Your task to perform on an android device: add a contact Image 0: 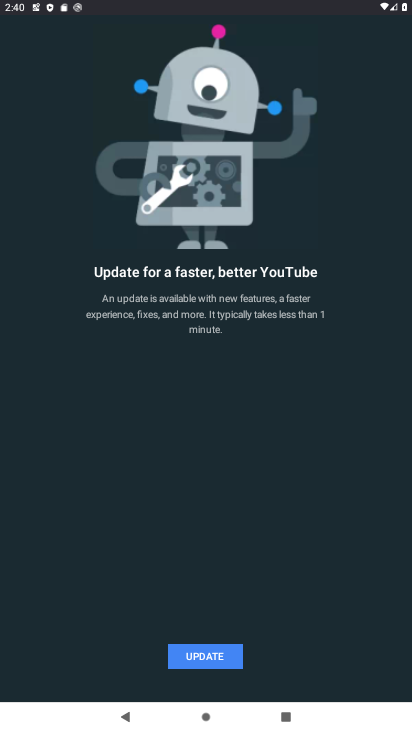
Step 0: press home button
Your task to perform on an android device: add a contact Image 1: 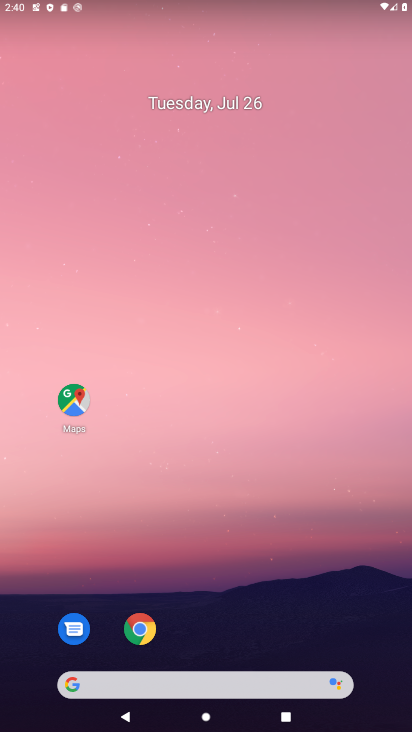
Step 1: drag from (229, 650) to (282, 83)
Your task to perform on an android device: add a contact Image 2: 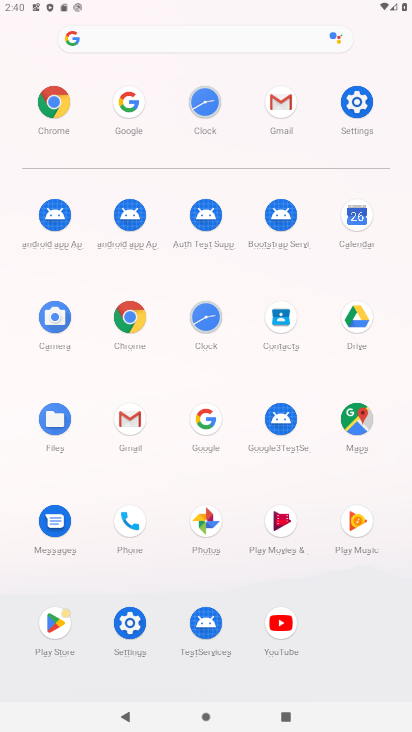
Step 2: click (295, 320)
Your task to perform on an android device: add a contact Image 3: 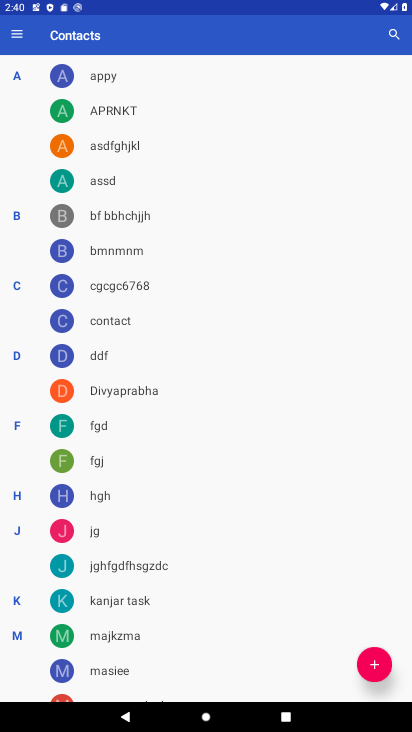
Step 3: click (383, 672)
Your task to perform on an android device: add a contact Image 4: 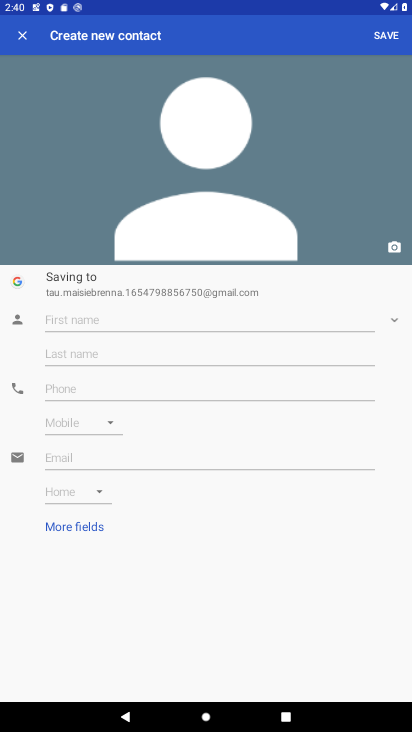
Step 4: click (115, 322)
Your task to perform on an android device: add a contact Image 5: 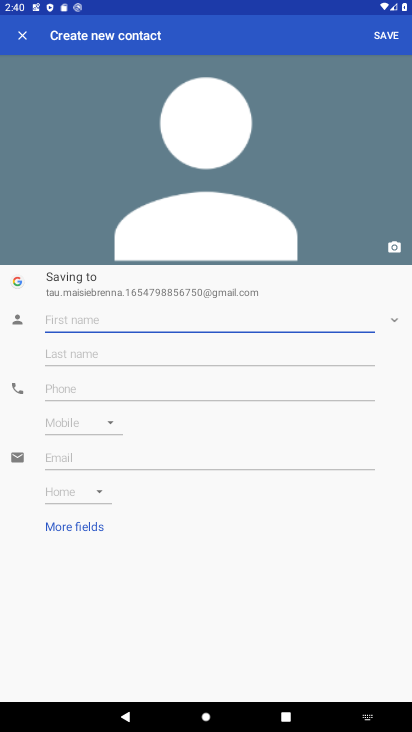
Step 5: type "czcc"
Your task to perform on an android device: add a contact Image 6: 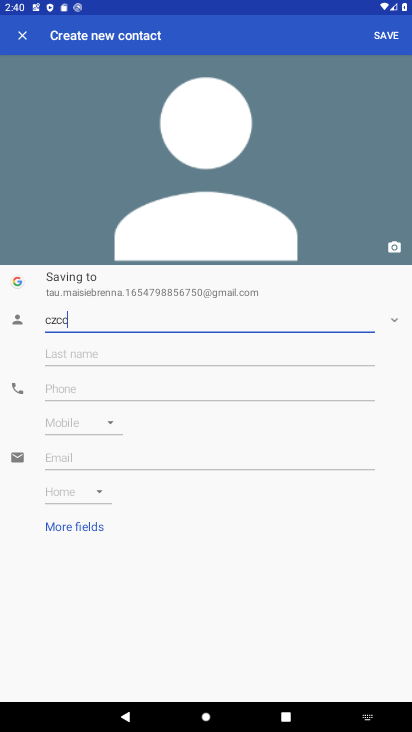
Step 6: type ""
Your task to perform on an android device: add a contact Image 7: 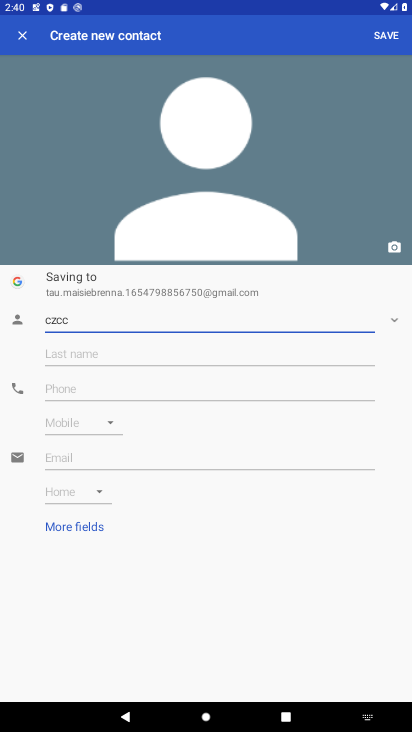
Step 7: click (98, 399)
Your task to perform on an android device: add a contact Image 8: 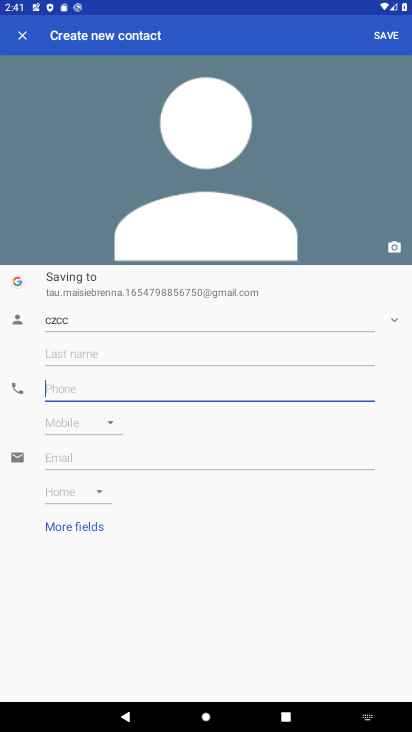
Step 8: type "634347545"
Your task to perform on an android device: add a contact Image 9: 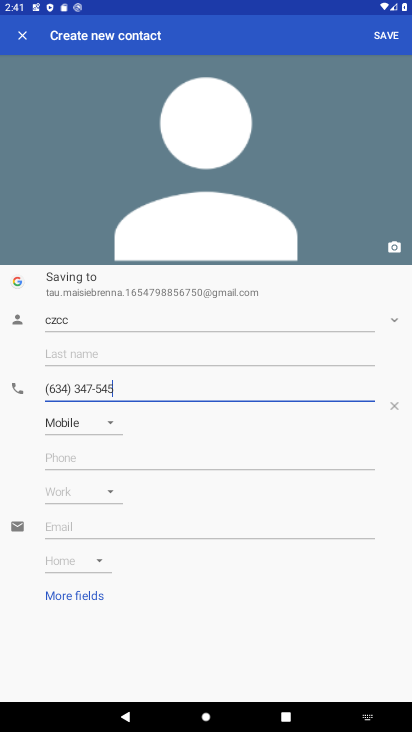
Step 9: click (395, 36)
Your task to perform on an android device: add a contact Image 10: 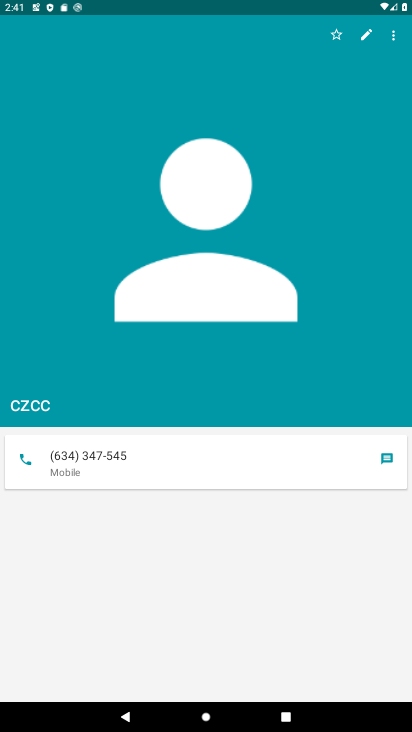
Step 10: task complete